Your task to perform on an android device: check storage Image 0: 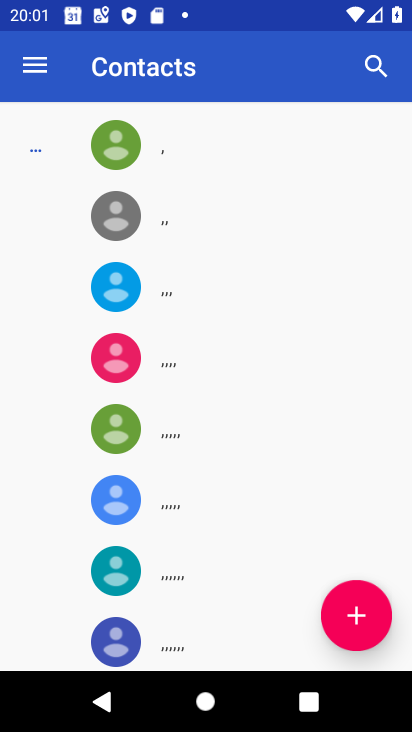
Step 0: press home button
Your task to perform on an android device: check storage Image 1: 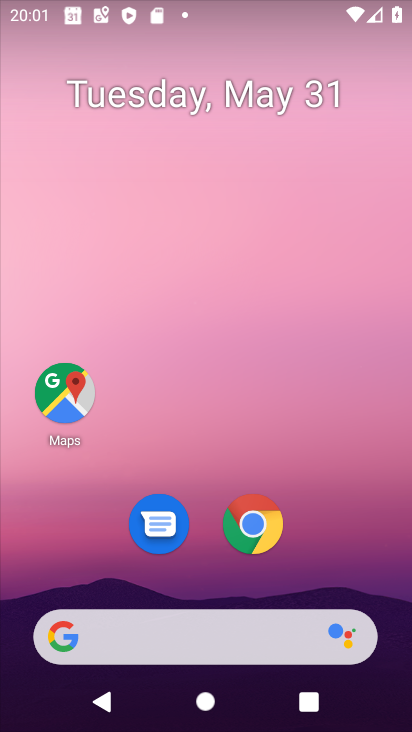
Step 1: drag from (328, 508) to (302, 21)
Your task to perform on an android device: check storage Image 2: 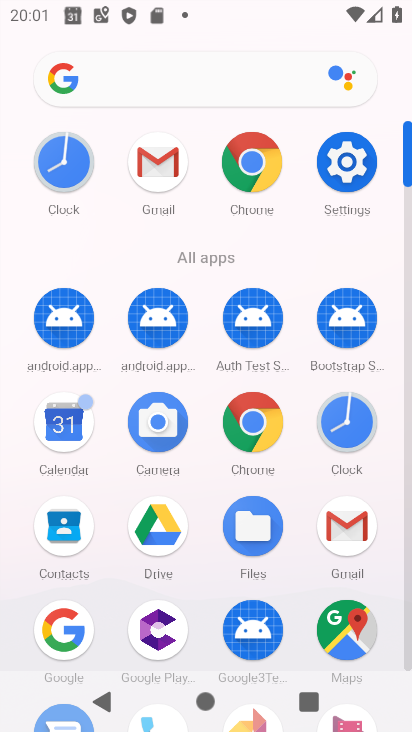
Step 2: click (338, 160)
Your task to perform on an android device: check storage Image 3: 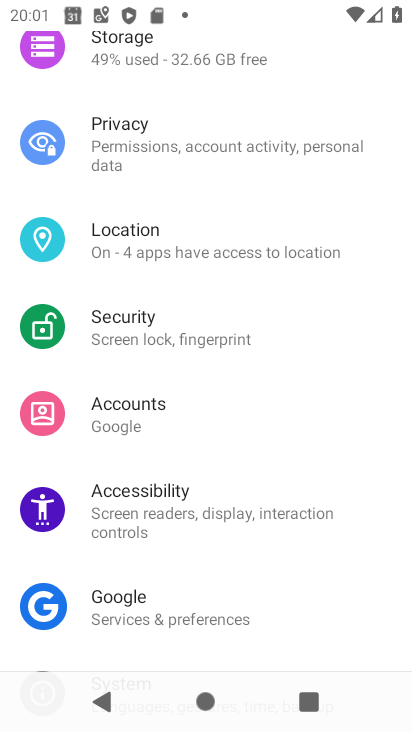
Step 3: drag from (230, 289) to (230, 401)
Your task to perform on an android device: check storage Image 4: 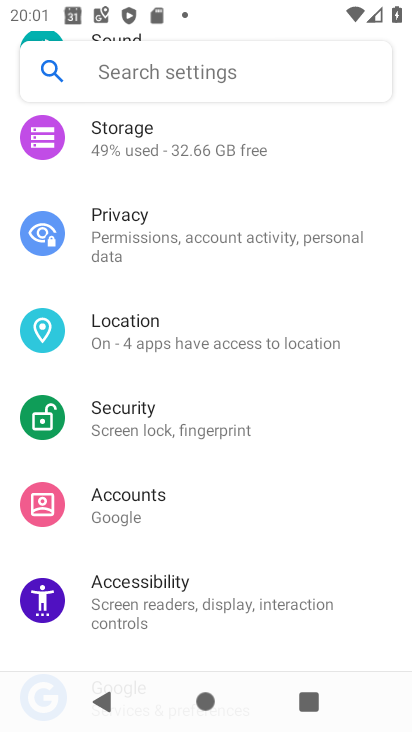
Step 4: click (214, 152)
Your task to perform on an android device: check storage Image 5: 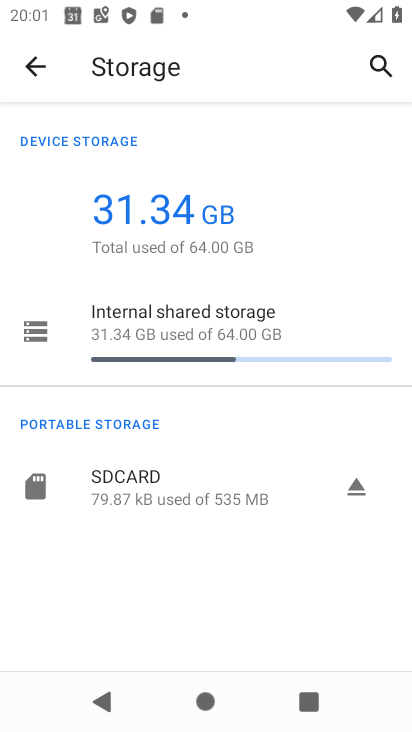
Step 5: task complete